Your task to perform on an android device: Turn off the flashlight Image 0: 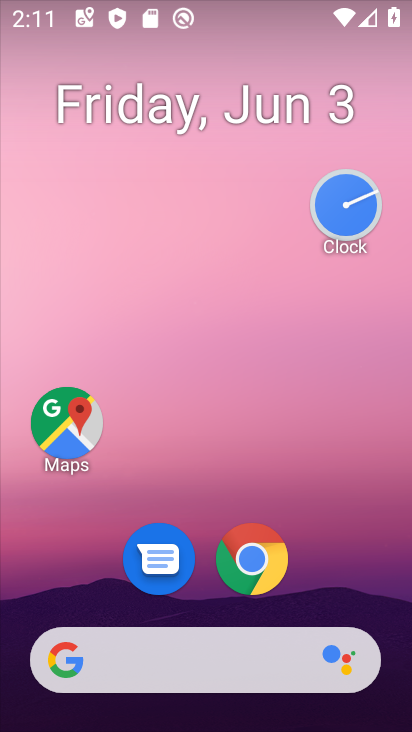
Step 0: drag from (332, 6) to (319, 381)
Your task to perform on an android device: Turn off the flashlight Image 1: 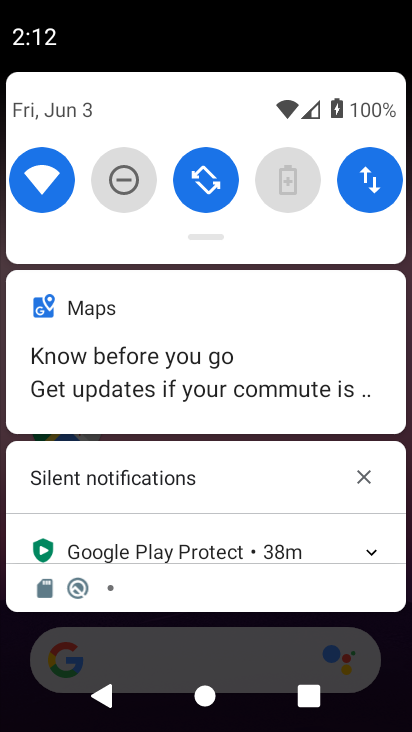
Step 1: drag from (210, 225) to (217, 551)
Your task to perform on an android device: Turn off the flashlight Image 2: 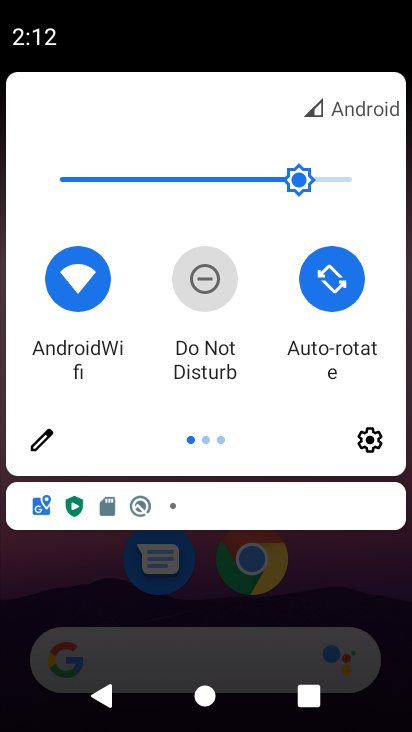
Step 2: click (40, 441)
Your task to perform on an android device: Turn off the flashlight Image 3: 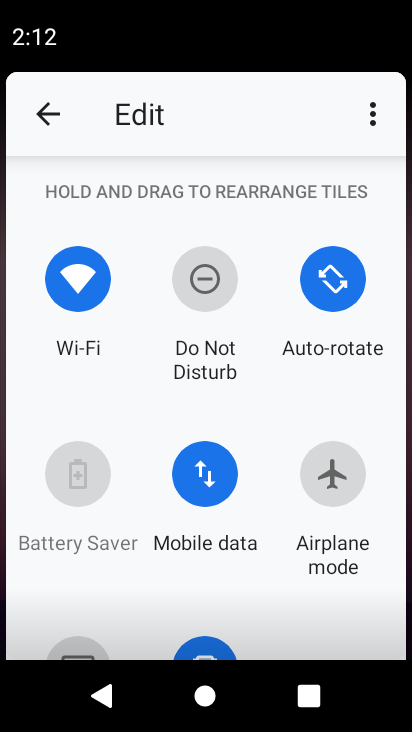
Step 3: task complete